Your task to perform on an android device: add a contact in the contacts app Image 0: 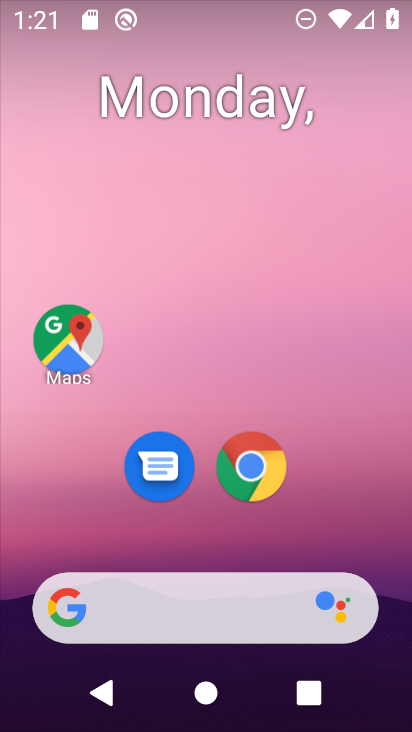
Step 0: drag from (229, 538) to (231, 3)
Your task to perform on an android device: add a contact in the contacts app Image 1: 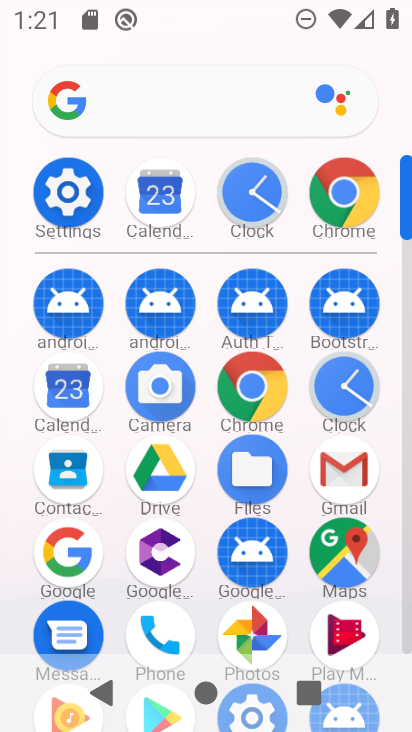
Step 1: drag from (216, 611) to (241, 150)
Your task to perform on an android device: add a contact in the contacts app Image 2: 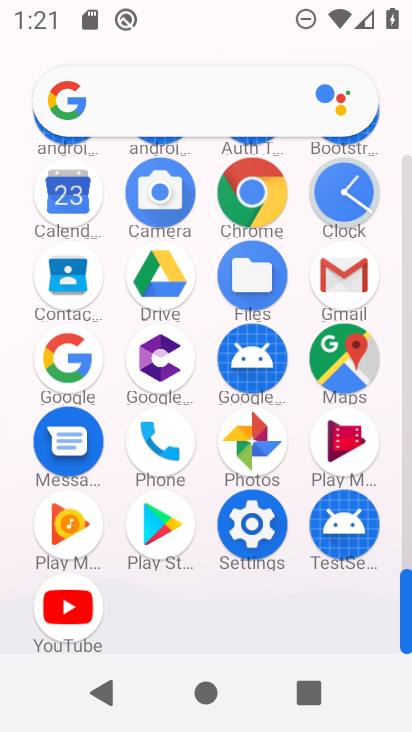
Step 2: drag from (202, 333) to (215, 539)
Your task to perform on an android device: add a contact in the contacts app Image 3: 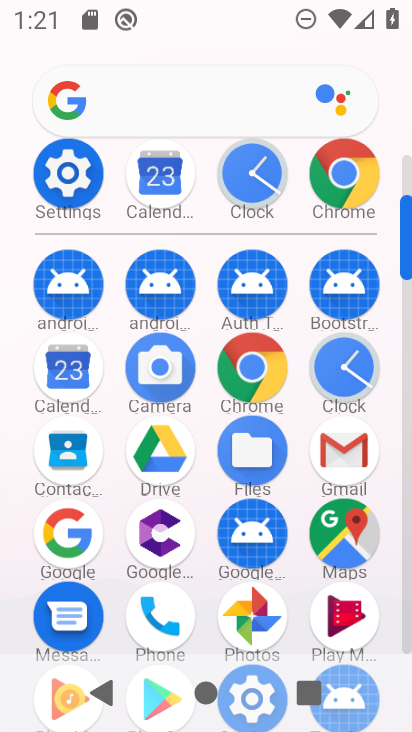
Step 3: click (55, 457)
Your task to perform on an android device: add a contact in the contacts app Image 4: 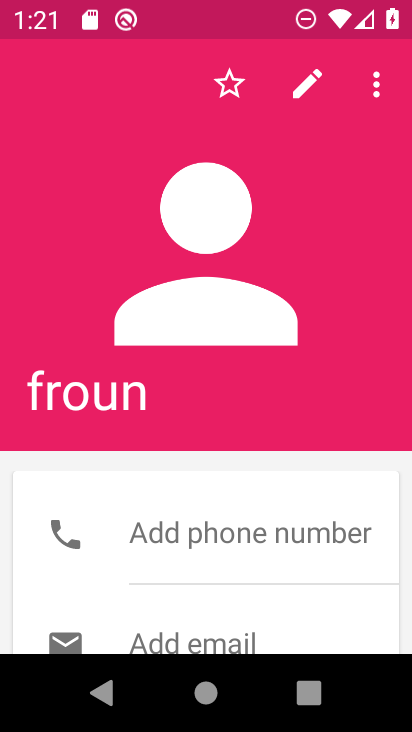
Step 4: press back button
Your task to perform on an android device: add a contact in the contacts app Image 5: 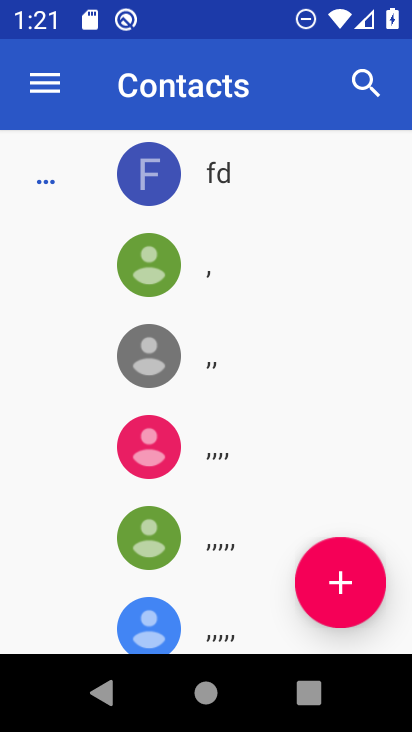
Step 5: click (359, 588)
Your task to perform on an android device: add a contact in the contacts app Image 6: 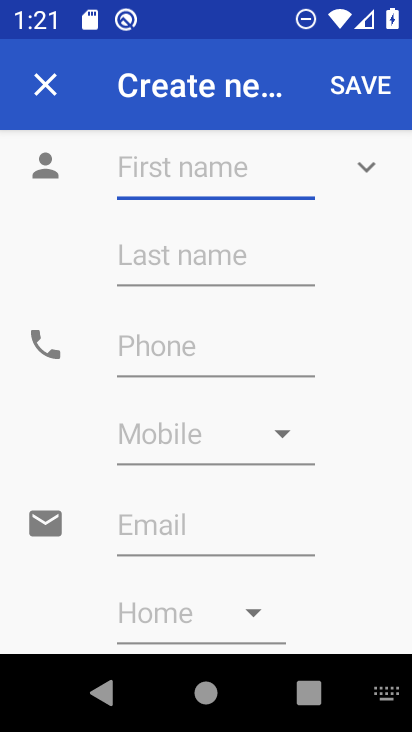
Step 6: type "firon"
Your task to perform on an android device: add a contact in the contacts app Image 7: 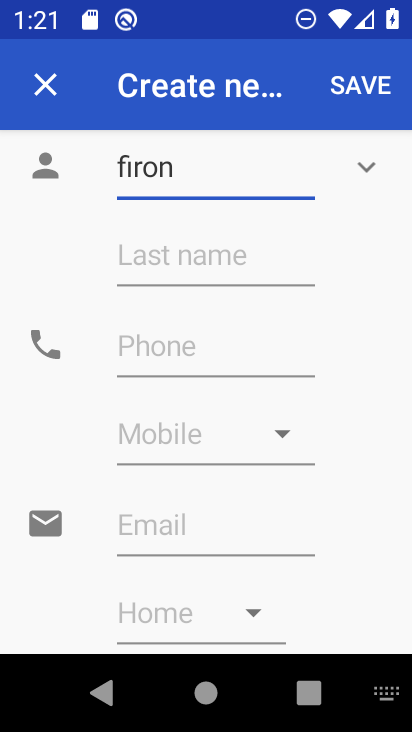
Step 7: click (376, 88)
Your task to perform on an android device: add a contact in the contacts app Image 8: 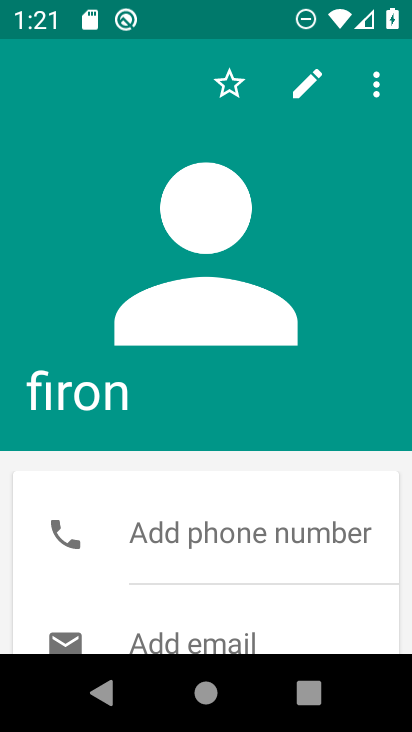
Step 8: task complete